Your task to perform on an android device: Open the map Image 0: 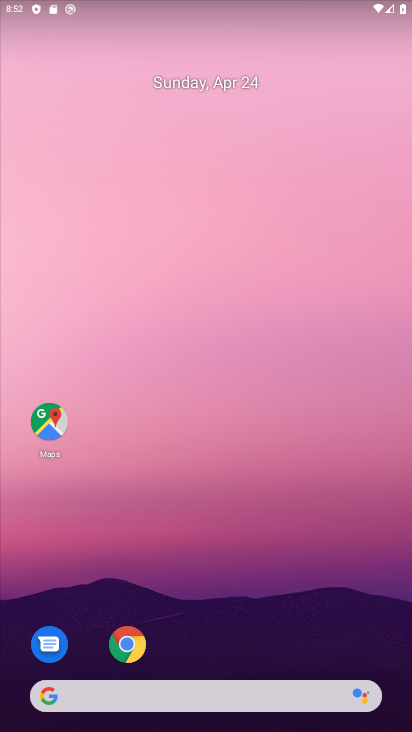
Step 0: drag from (221, 631) to (203, 72)
Your task to perform on an android device: Open the map Image 1: 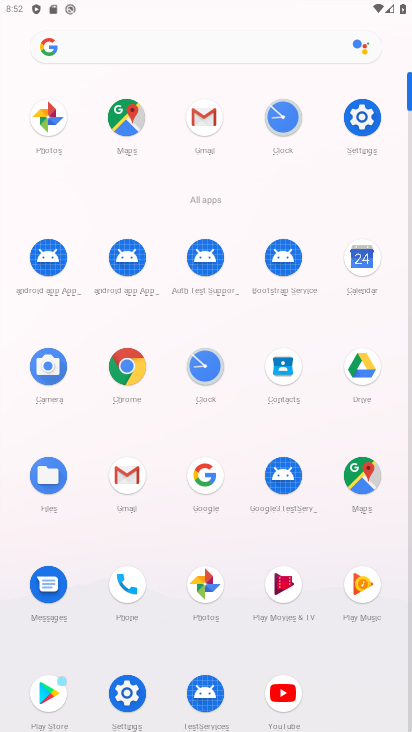
Step 1: click (352, 482)
Your task to perform on an android device: Open the map Image 2: 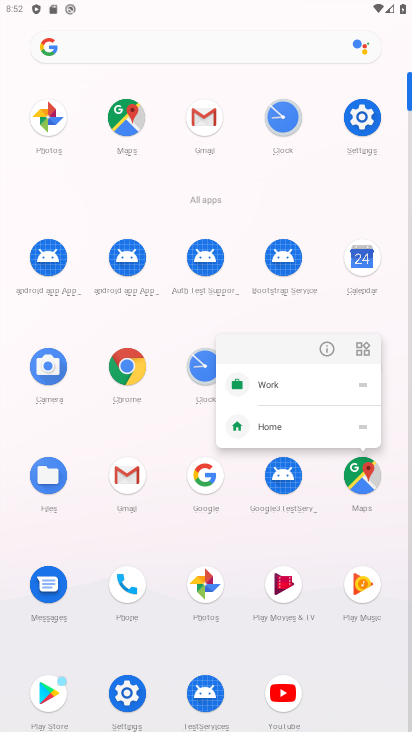
Step 2: click (358, 473)
Your task to perform on an android device: Open the map Image 3: 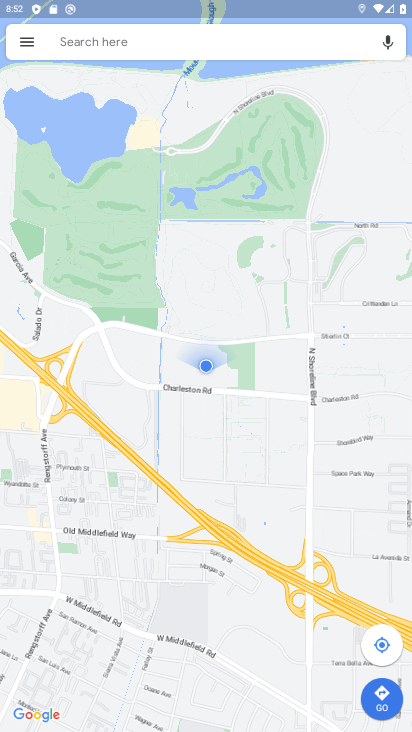
Step 3: task complete